Your task to perform on an android device: Open calendar and show me the second week of next month Image 0: 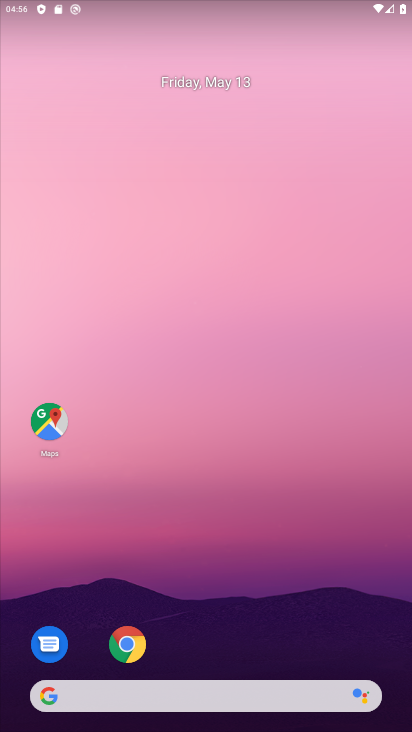
Step 0: drag from (319, 530) to (324, 83)
Your task to perform on an android device: Open calendar and show me the second week of next month Image 1: 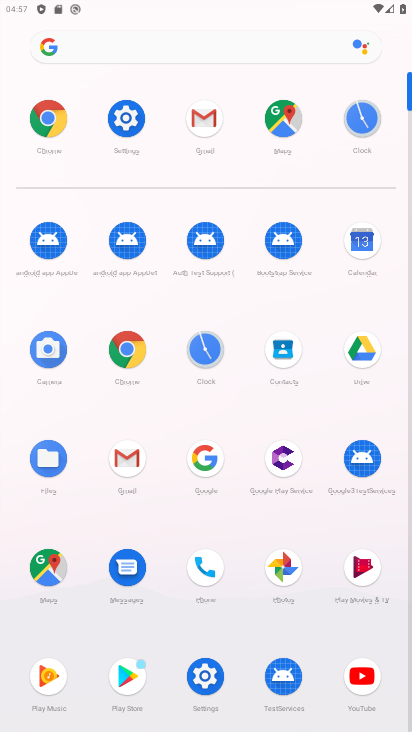
Step 1: click (363, 238)
Your task to perform on an android device: Open calendar and show me the second week of next month Image 2: 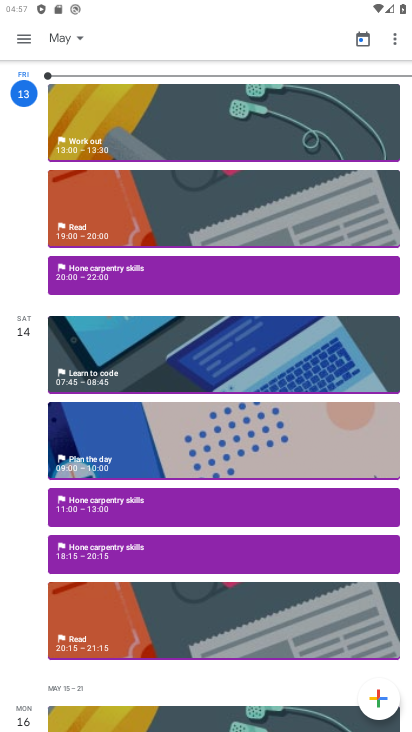
Step 2: click (77, 43)
Your task to perform on an android device: Open calendar and show me the second week of next month Image 3: 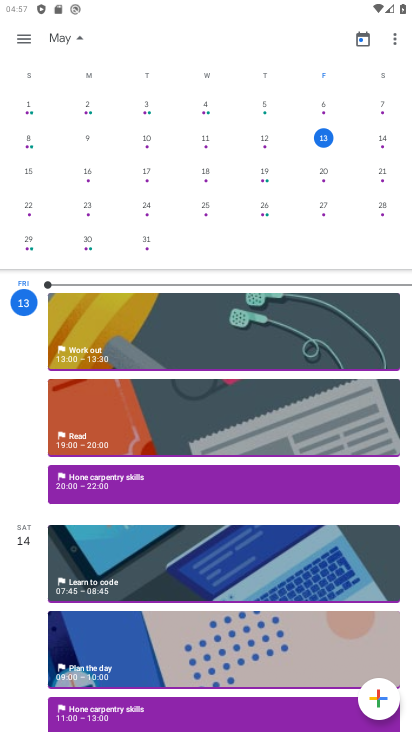
Step 3: drag from (368, 154) to (3, 149)
Your task to perform on an android device: Open calendar and show me the second week of next month Image 4: 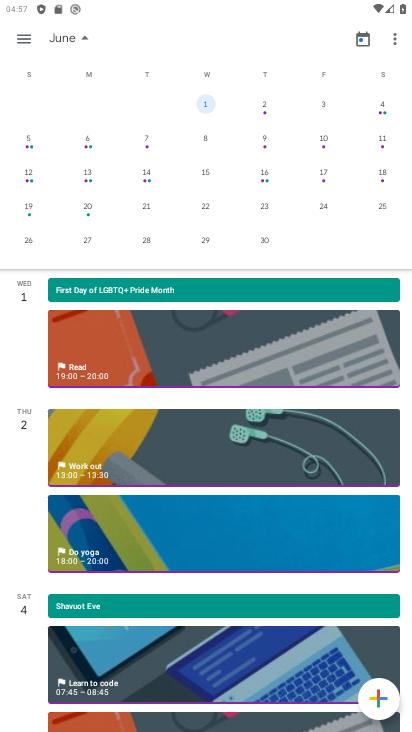
Step 4: click (89, 134)
Your task to perform on an android device: Open calendar and show me the second week of next month Image 5: 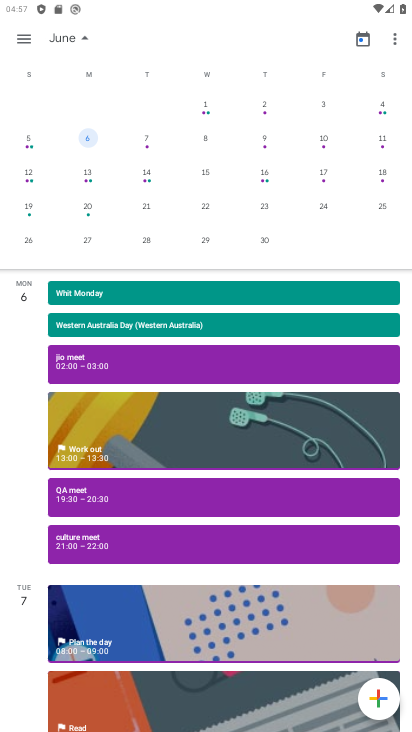
Step 5: task complete